Your task to perform on an android device: turn off wifi Image 0: 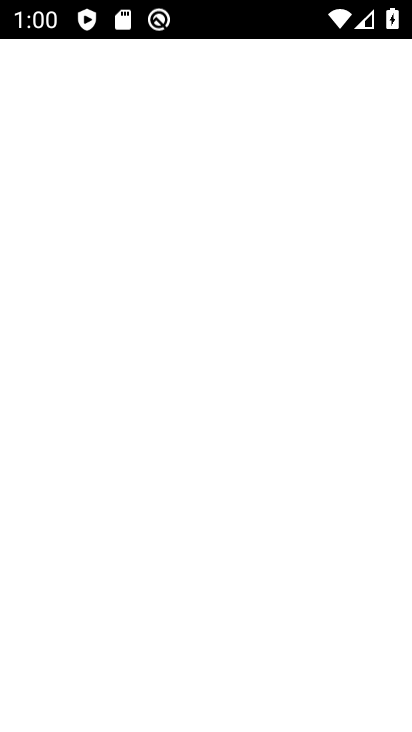
Step 0: press home button
Your task to perform on an android device: turn off wifi Image 1: 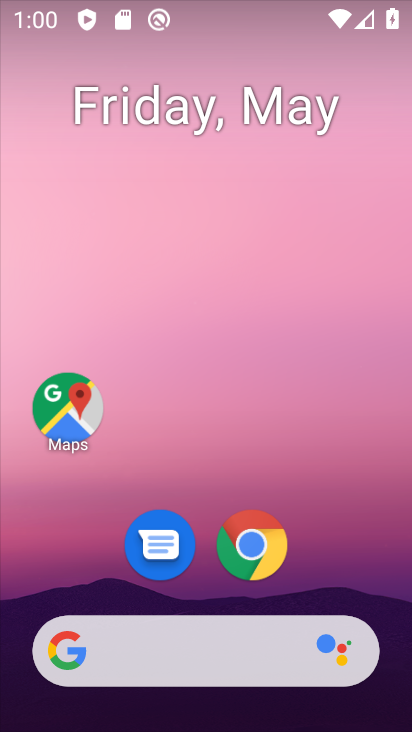
Step 1: drag from (333, 563) to (152, 26)
Your task to perform on an android device: turn off wifi Image 2: 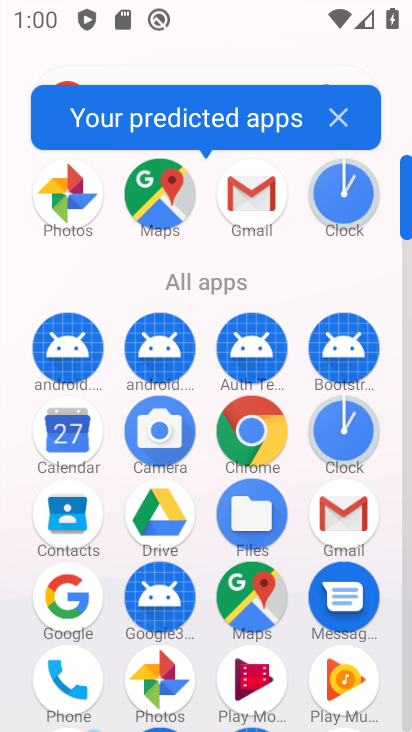
Step 2: drag from (301, 643) to (212, 95)
Your task to perform on an android device: turn off wifi Image 3: 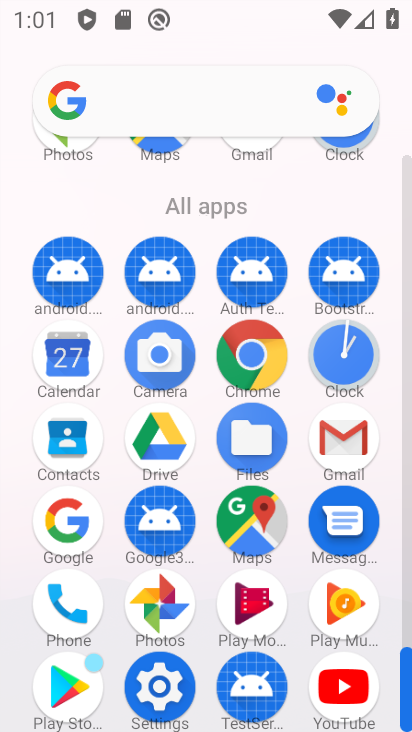
Step 3: click (154, 687)
Your task to perform on an android device: turn off wifi Image 4: 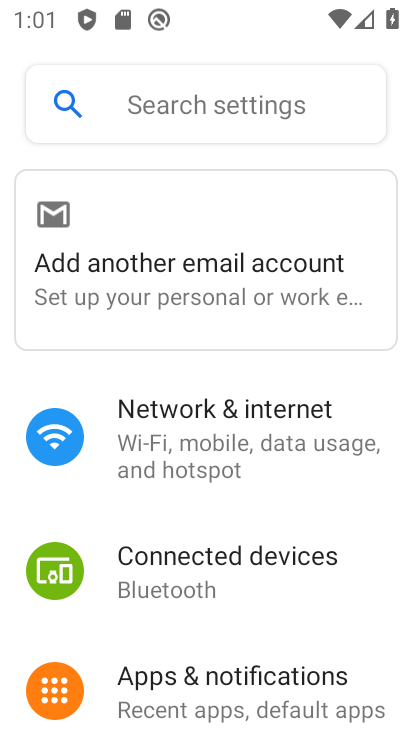
Step 4: click (227, 433)
Your task to perform on an android device: turn off wifi Image 5: 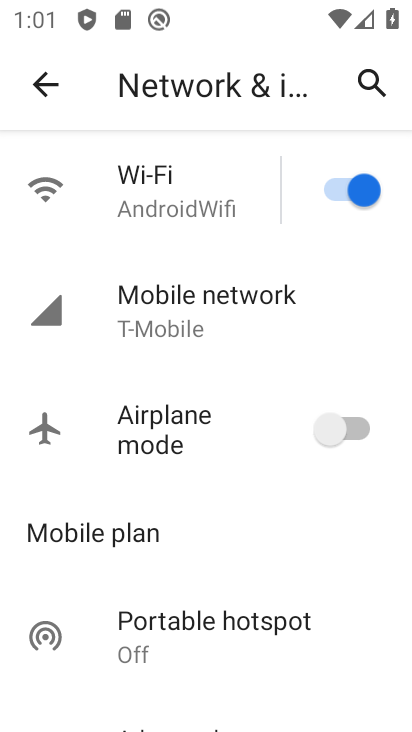
Step 5: click (341, 195)
Your task to perform on an android device: turn off wifi Image 6: 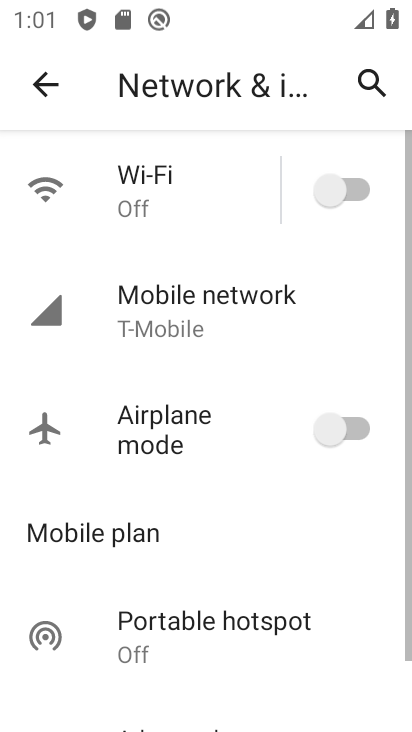
Step 6: task complete